Your task to perform on an android device: open wifi settings Image 0: 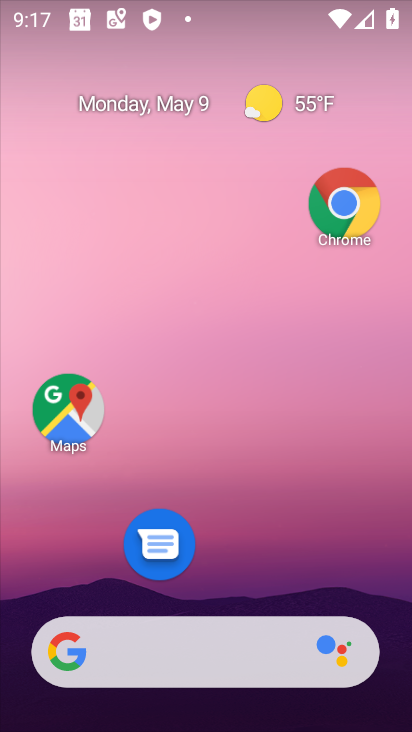
Step 0: drag from (208, 591) to (251, 52)
Your task to perform on an android device: open wifi settings Image 1: 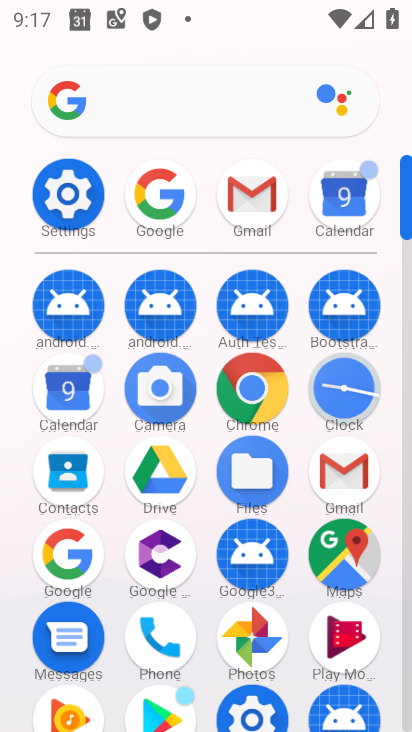
Step 1: click (72, 221)
Your task to perform on an android device: open wifi settings Image 2: 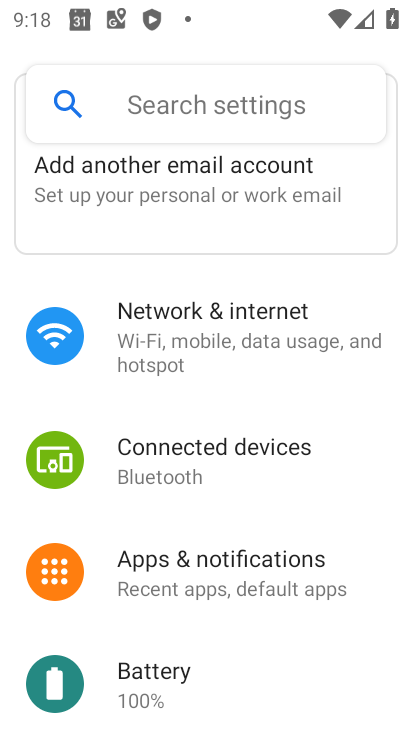
Step 2: click (203, 360)
Your task to perform on an android device: open wifi settings Image 3: 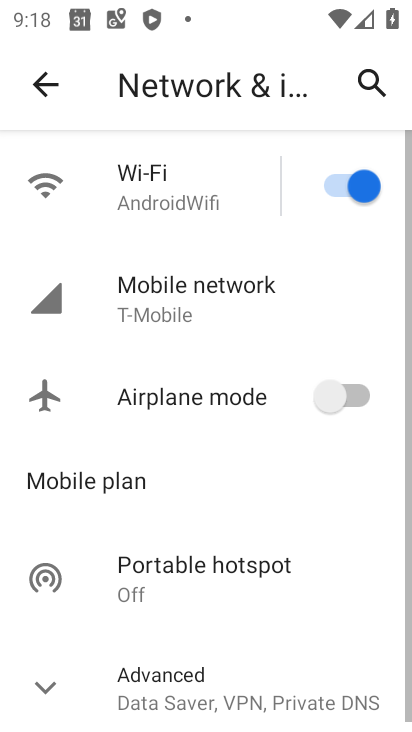
Step 3: click (168, 179)
Your task to perform on an android device: open wifi settings Image 4: 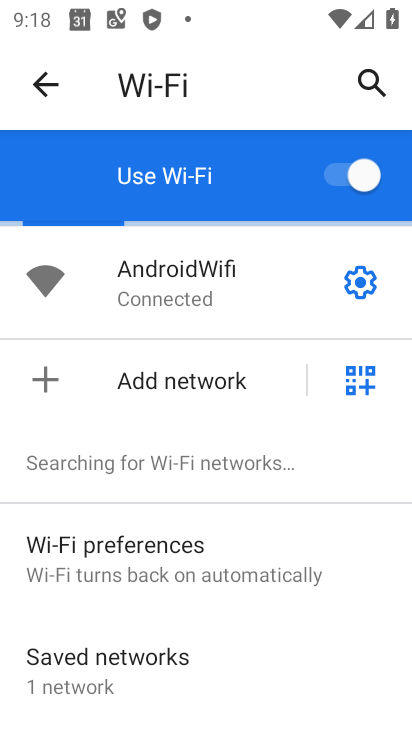
Step 4: task complete